Your task to perform on an android device: turn off airplane mode Image 0: 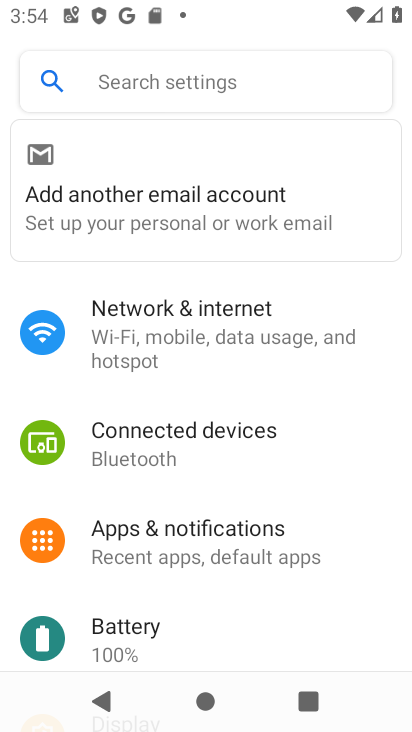
Step 0: click (233, 322)
Your task to perform on an android device: turn off airplane mode Image 1: 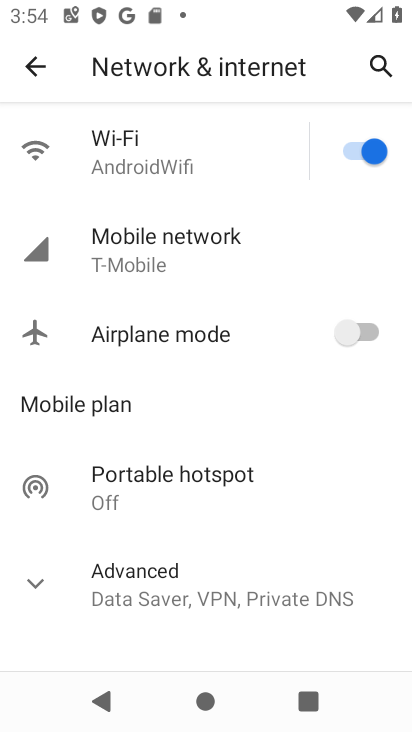
Step 1: task complete